Your task to perform on an android device: Search for sushi restaurants on Maps Image 0: 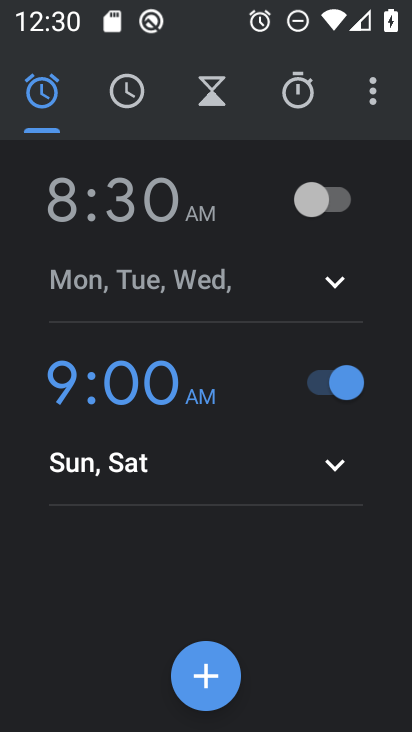
Step 0: press home button
Your task to perform on an android device: Search for sushi restaurants on Maps Image 1: 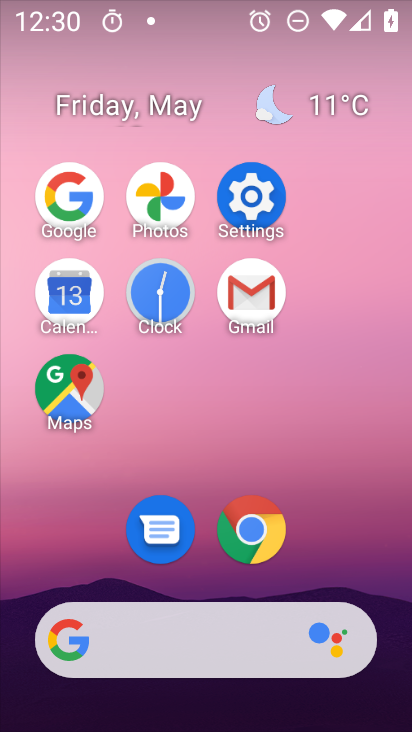
Step 1: click (63, 379)
Your task to perform on an android device: Search for sushi restaurants on Maps Image 2: 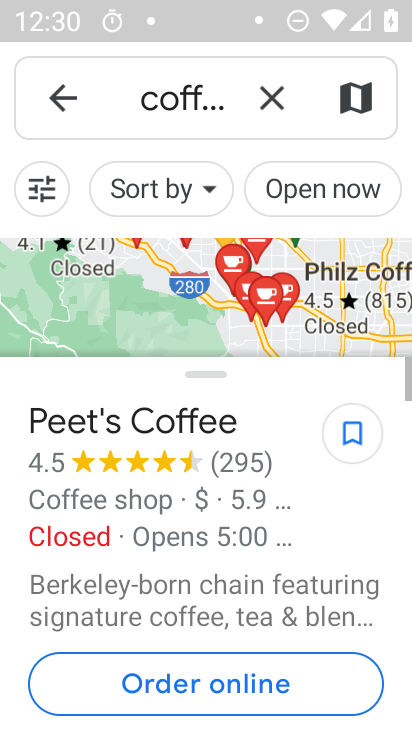
Step 2: click (284, 89)
Your task to perform on an android device: Search for sushi restaurants on Maps Image 3: 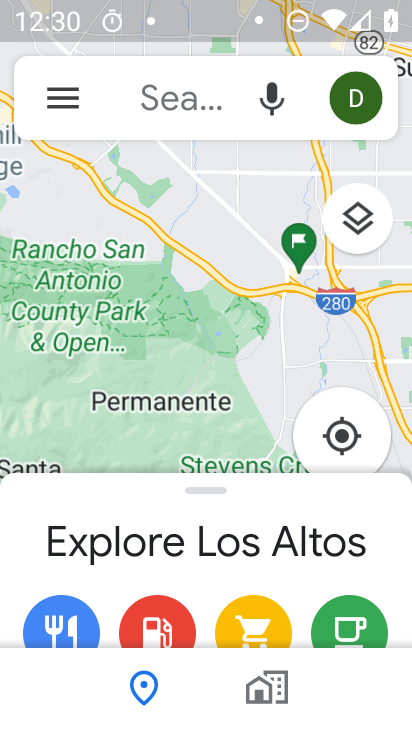
Step 3: click (168, 80)
Your task to perform on an android device: Search for sushi restaurants on Maps Image 4: 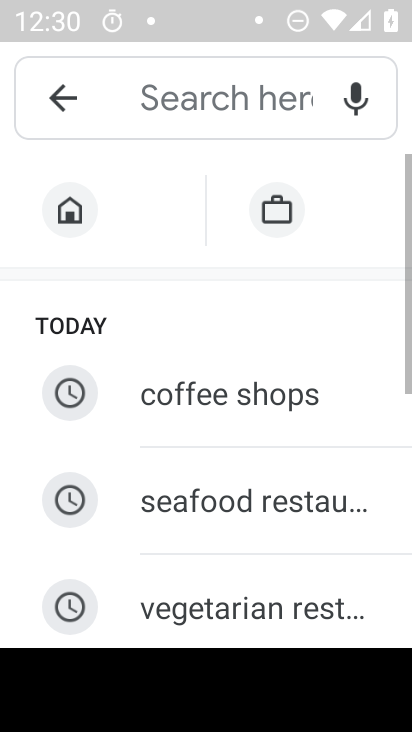
Step 4: drag from (251, 544) to (239, 196)
Your task to perform on an android device: Search for sushi restaurants on Maps Image 5: 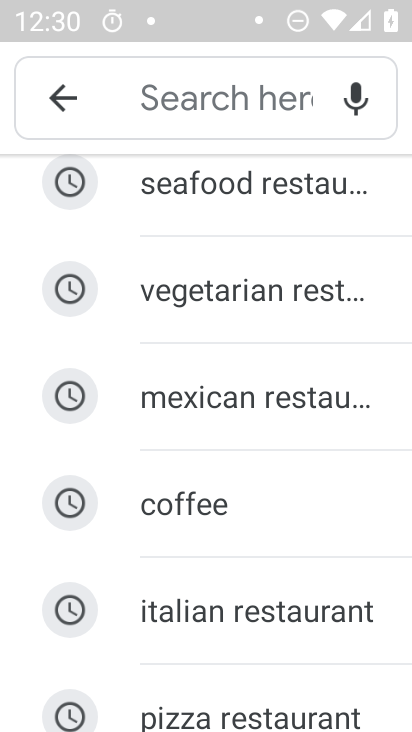
Step 5: drag from (277, 557) to (223, 195)
Your task to perform on an android device: Search for sushi restaurants on Maps Image 6: 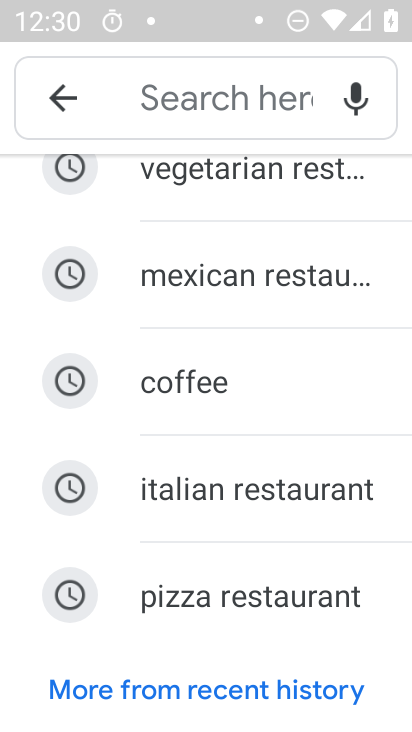
Step 6: click (208, 72)
Your task to perform on an android device: Search for sushi restaurants on Maps Image 7: 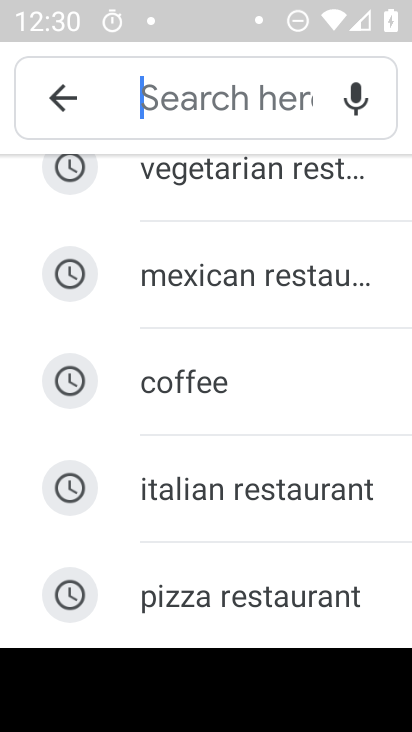
Step 7: type "sushi restaurants"
Your task to perform on an android device: Search for sushi restaurants on Maps Image 8: 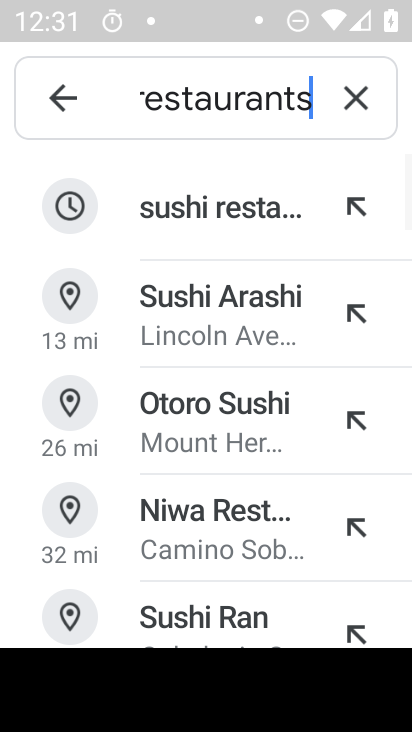
Step 8: task complete